Your task to perform on an android device: Open network settings Image 0: 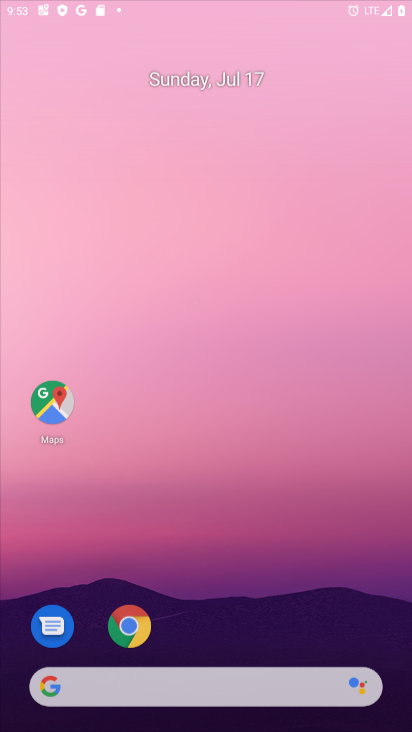
Step 0: press home button
Your task to perform on an android device: Open network settings Image 1: 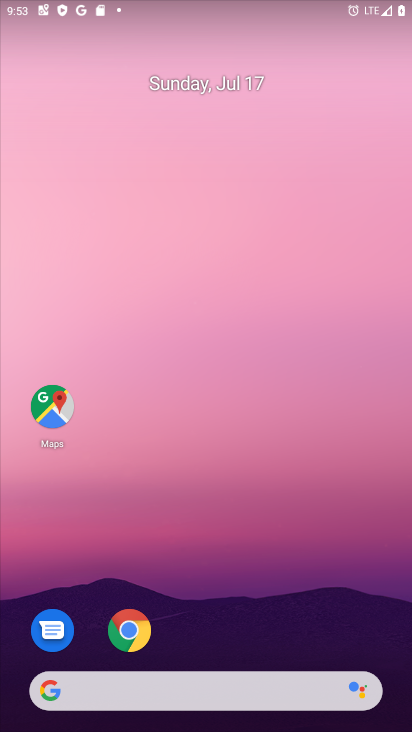
Step 1: drag from (242, 643) to (255, 73)
Your task to perform on an android device: Open network settings Image 2: 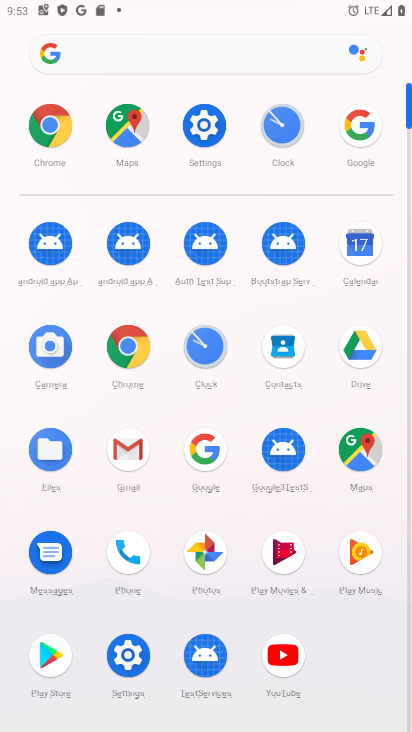
Step 2: click (200, 119)
Your task to perform on an android device: Open network settings Image 3: 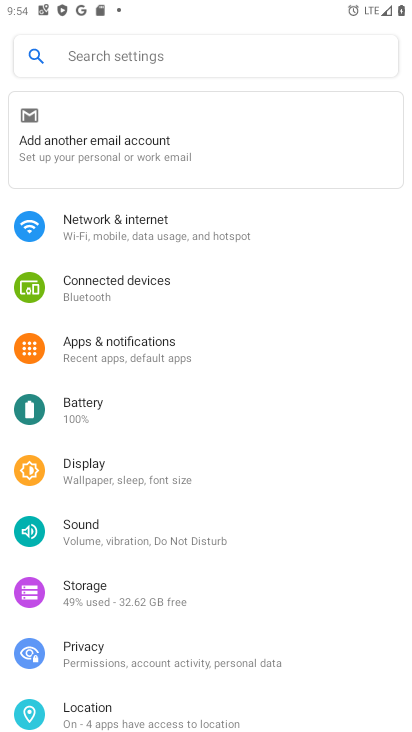
Step 3: click (181, 221)
Your task to perform on an android device: Open network settings Image 4: 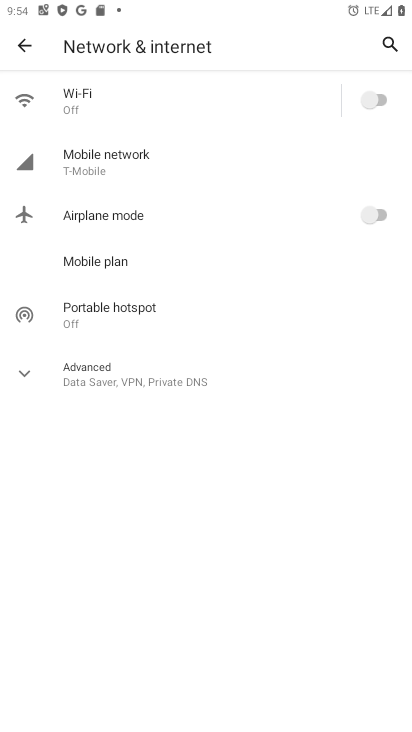
Step 4: click (22, 365)
Your task to perform on an android device: Open network settings Image 5: 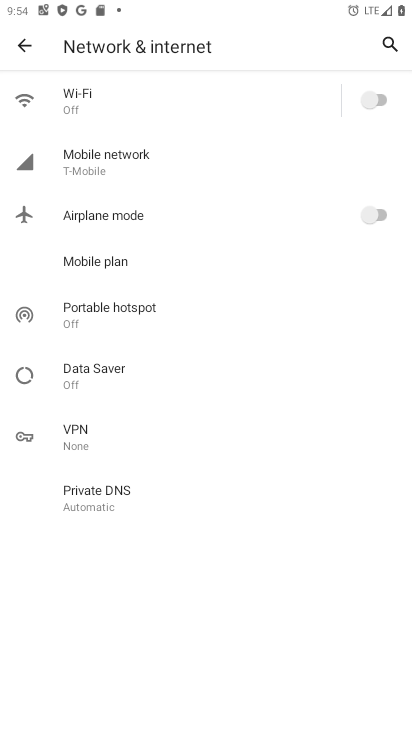
Step 5: task complete